Your task to perform on an android device: Go to notification settings Image 0: 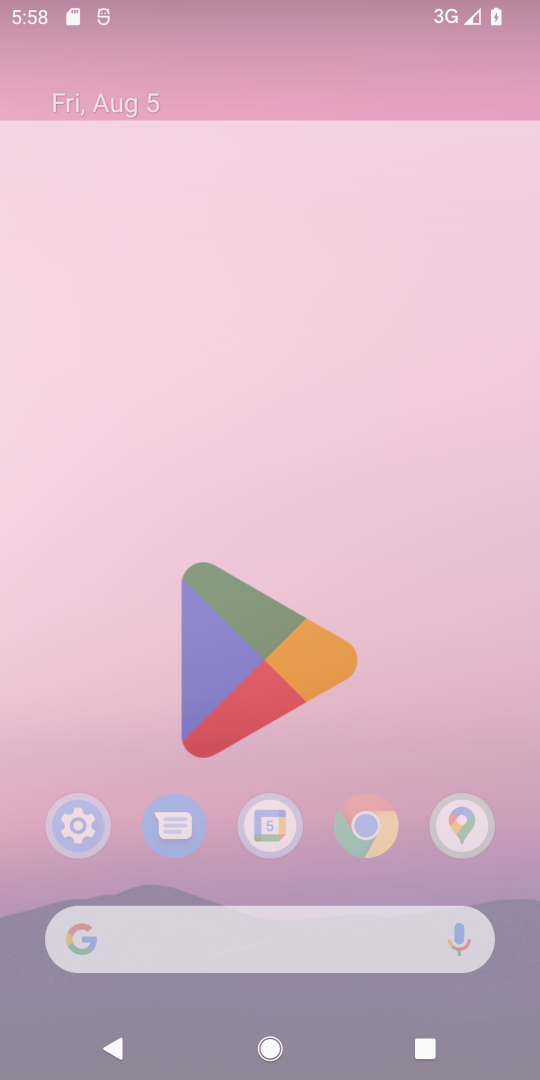
Step 0: press home button
Your task to perform on an android device: Go to notification settings Image 1: 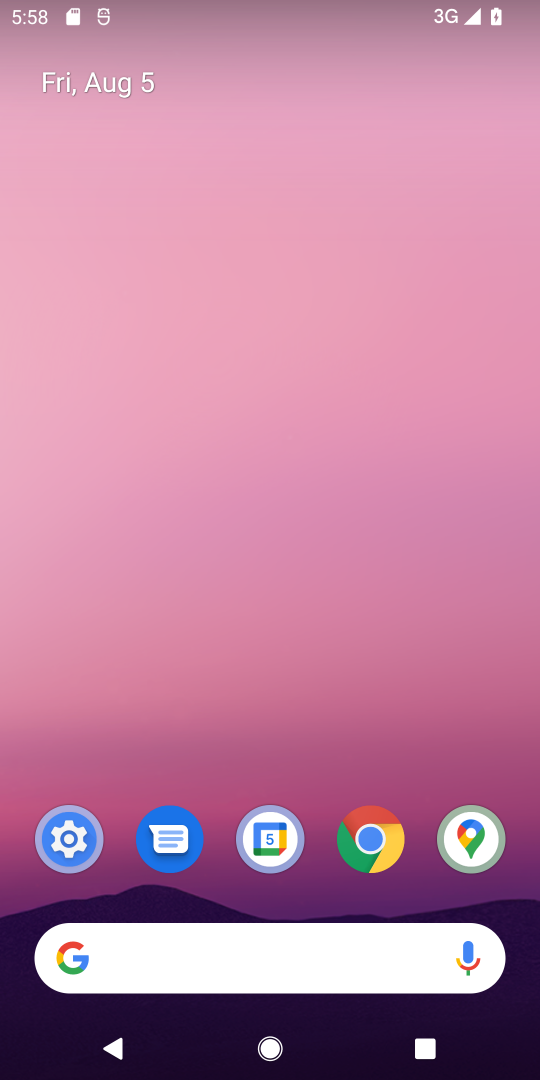
Step 1: click (358, 827)
Your task to perform on an android device: Go to notification settings Image 2: 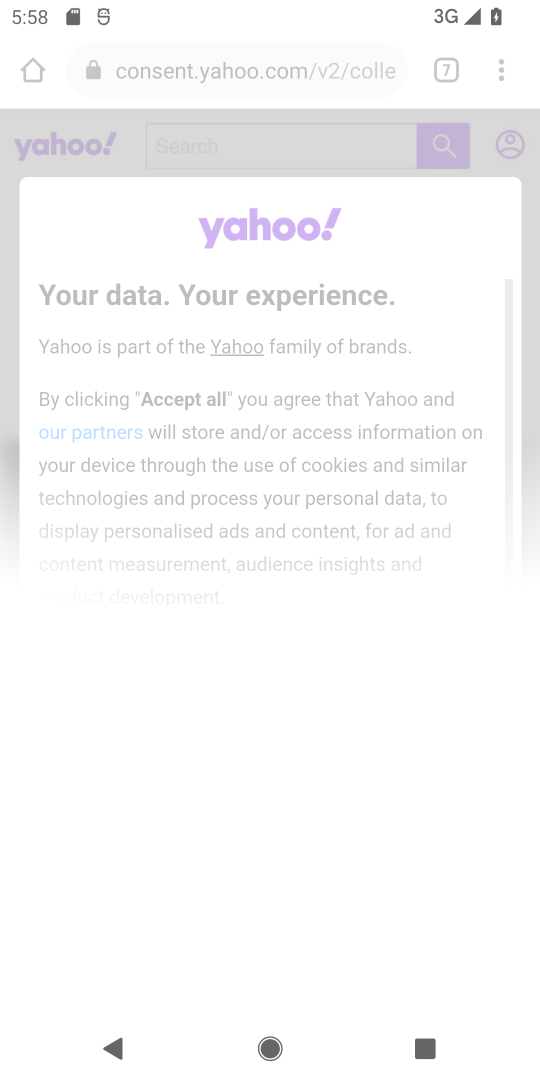
Step 2: press back button
Your task to perform on an android device: Go to notification settings Image 3: 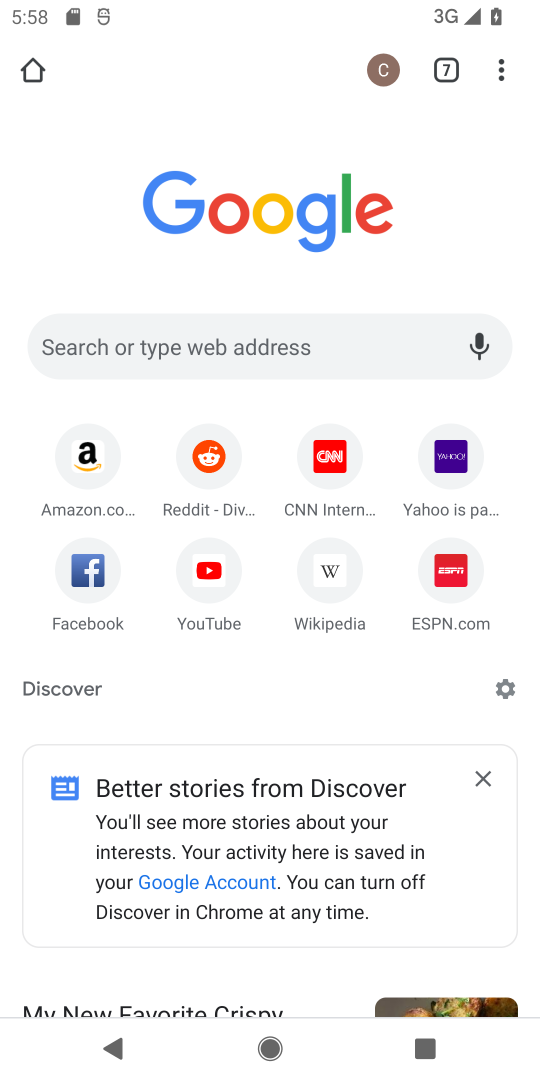
Step 3: press home button
Your task to perform on an android device: Go to notification settings Image 4: 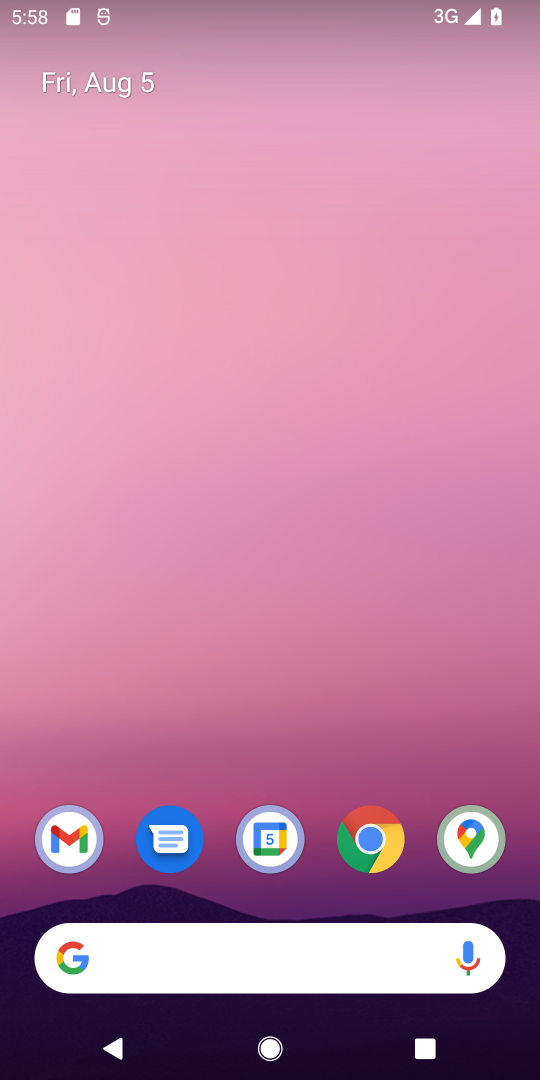
Step 4: drag from (245, 745) to (242, 164)
Your task to perform on an android device: Go to notification settings Image 5: 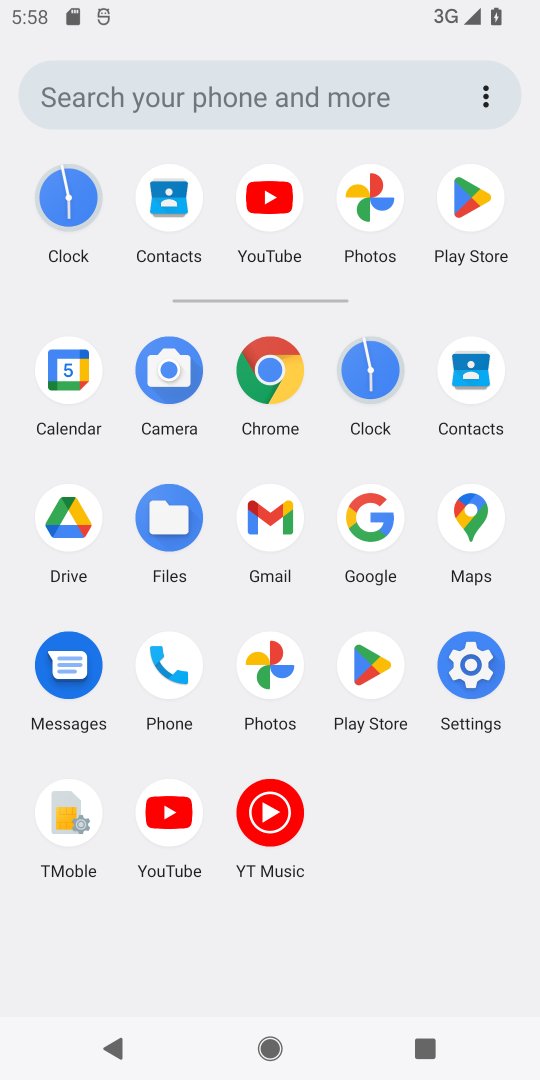
Step 5: click (450, 640)
Your task to perform on an android device: Go to notification settings Image 6: 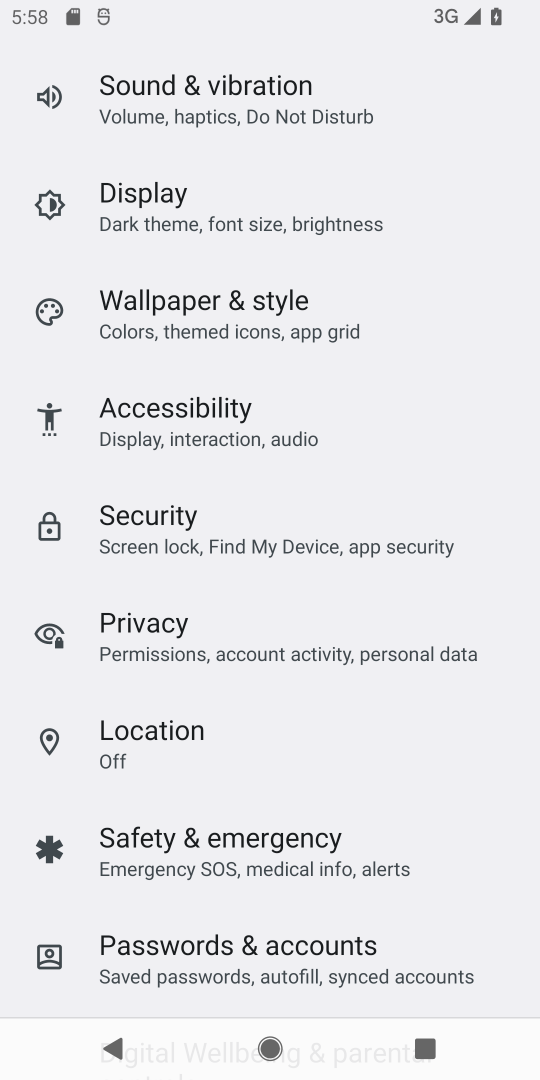
Step 6: drag from (277, 177) to (325, 656)
Your task to perform on an android device: Go to notification settings Image 7: 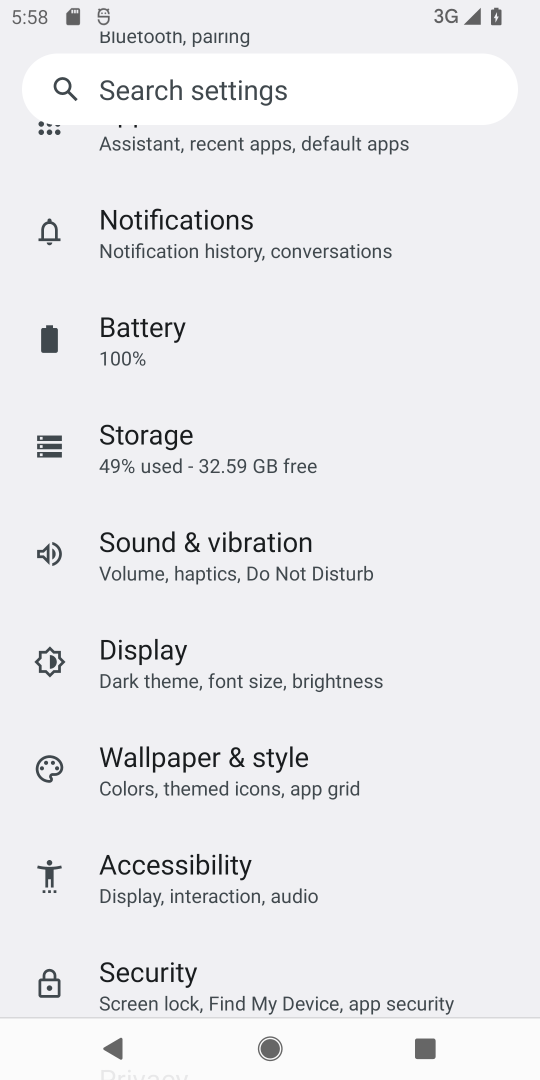
Step 7: click (251, 245)
Your task to perform on an android device: Go to notification settings Image 8: 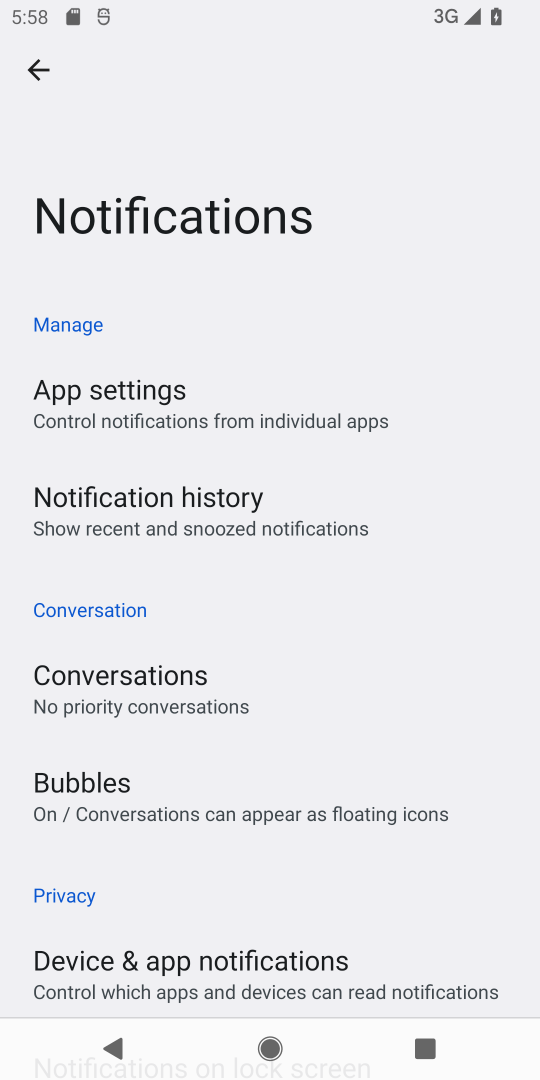
Step 8: task complete